Your task to perform on an android device: Go to Yahoo.com Image 0: 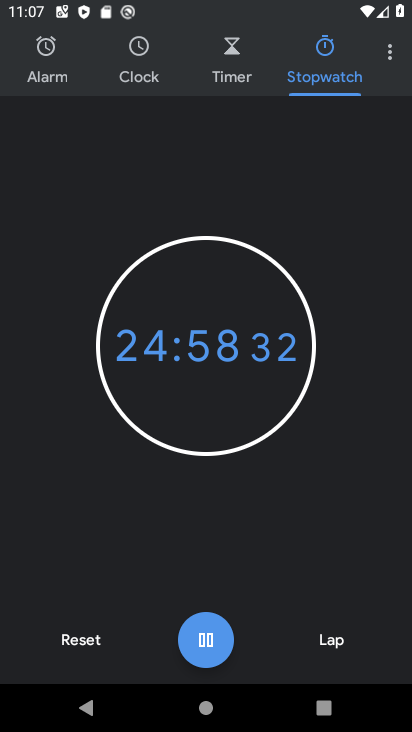
Step 0: press home button
Your task to perform on an android device: Go to Yahoo.com Image 1: 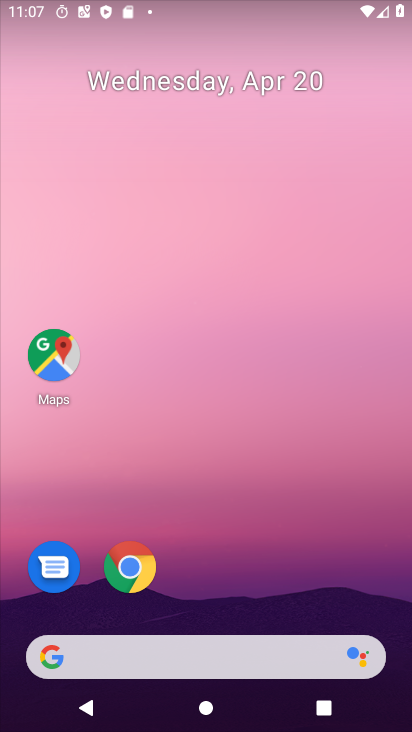
Step 1: click (141, 568)
Your task to perform on an android device: Go to Yahoo.com Image 2: 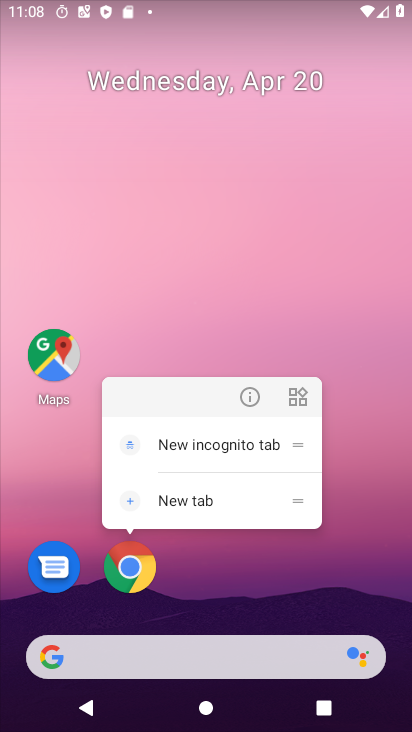
Step 2: click (247, 400)
Your task to perform on an android device: Go to Yahoo.com Image 3: 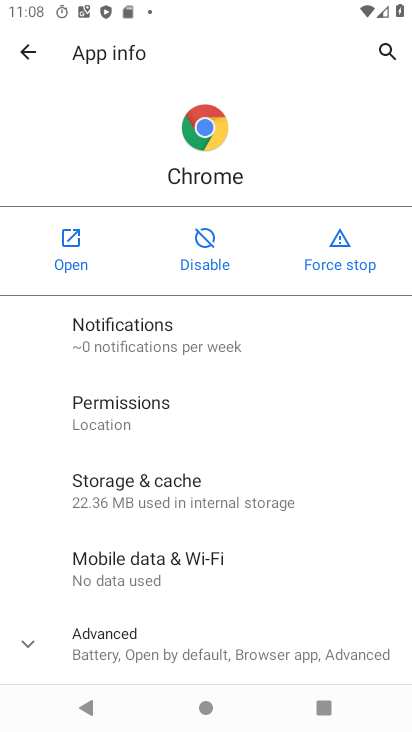
Step 3: click (73, 258)
Your task to perform on an android device: Go to Yahoo.com Image 4: 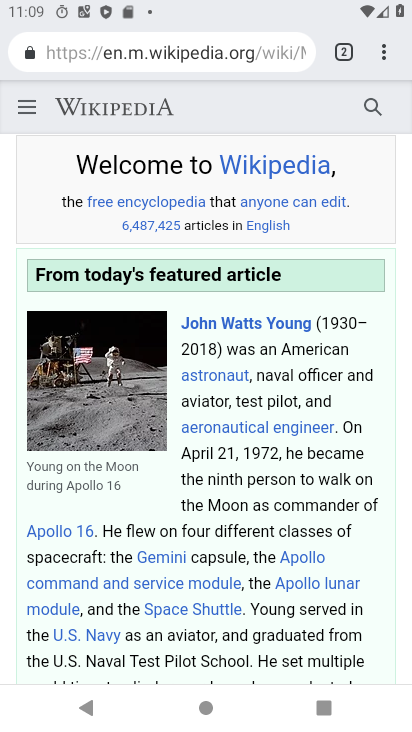
Step 4: click (355, 57)
Your task to perform on an android device: Go to Yahoo.com Image 5: 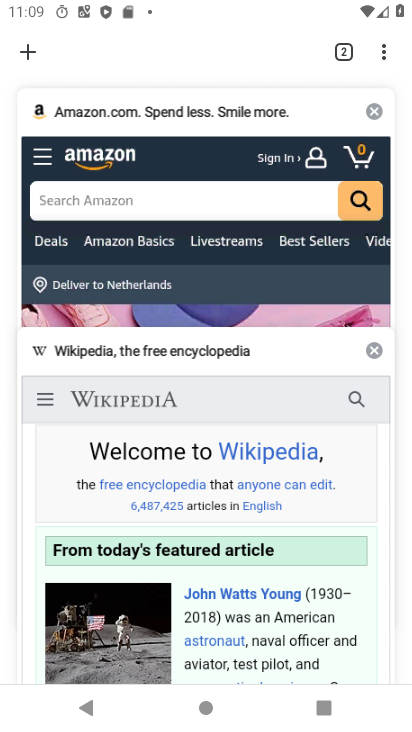
Step 5: click (36, 50)
Your task to perform on an android device: Go to Yahoo.com Image 6: 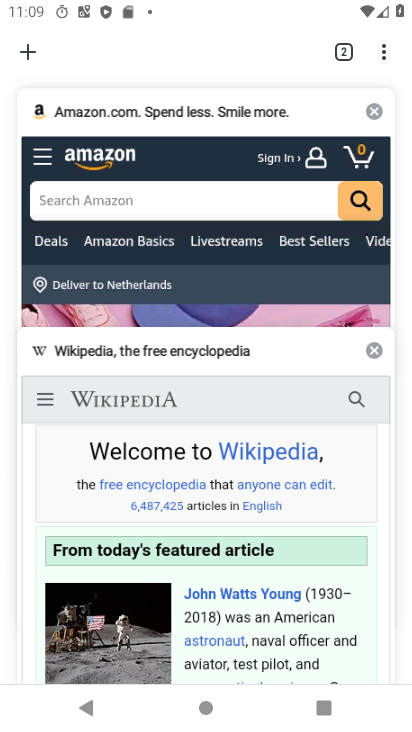
Step 6: click (32, 53)
Your task to perform on an android device: Go to Yahoo.com Image 7: 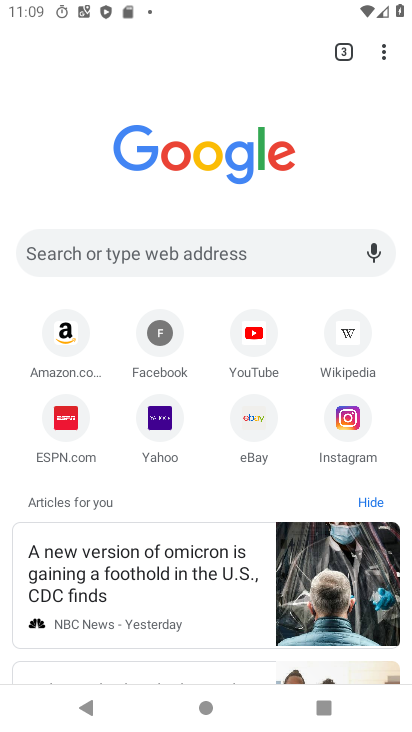
Step 7: click (154, 444)
Your task to perform on an android device: Go to Yahoo.com Image 8: 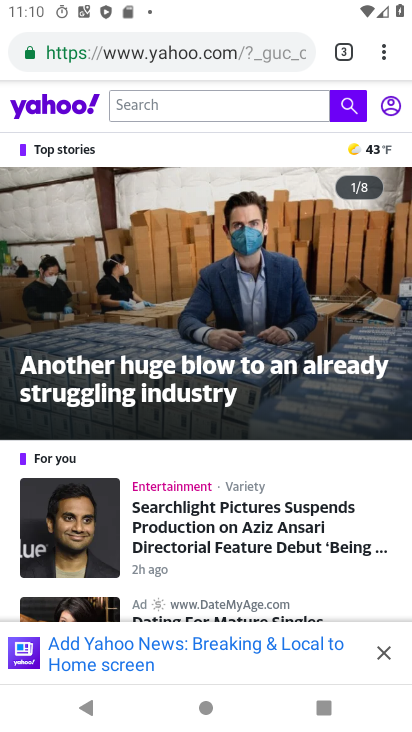
Step 8: task complete